Your task to perform on an android device: find which apps use the phone's location Image 0: 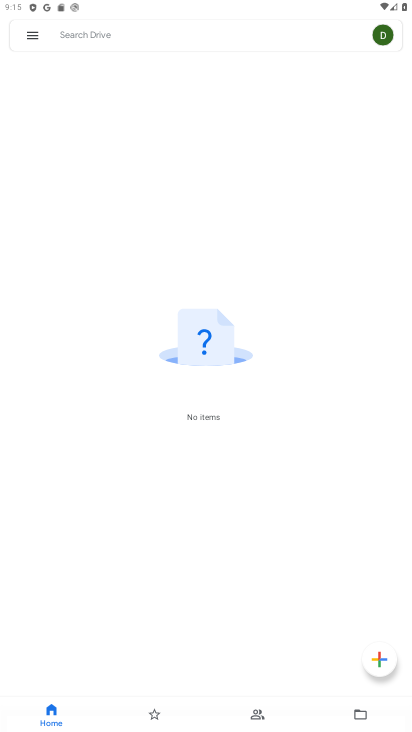
Step 0: press home button
Your task to perform on an android device: find which apps use the phone's location Image 1: 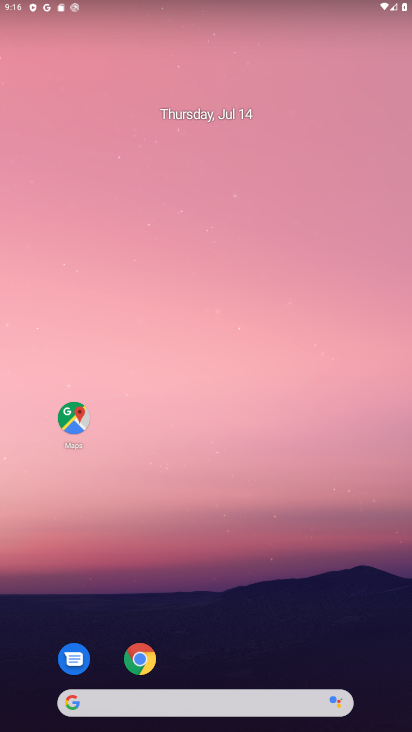
Step 1: drag from (314, 634) to (296, 273)
Your task to perform on an android device: find which apps use the phone's location Image 2: 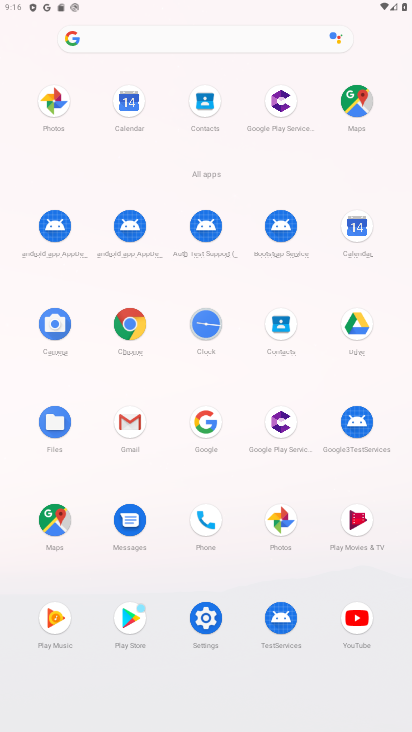
Step 2: click (206, 605)
Your task to perform on an android device: find which apps use the phone's location Image 3: 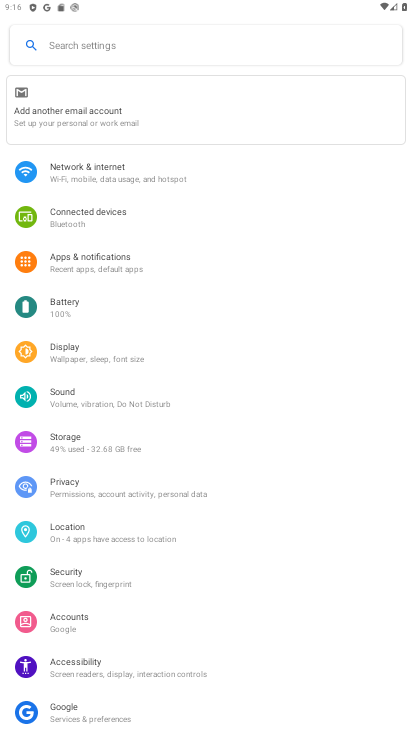
Step 3: click (87, 532)
Your task to perform on an android device: find which apps use the phone's location Image 4: 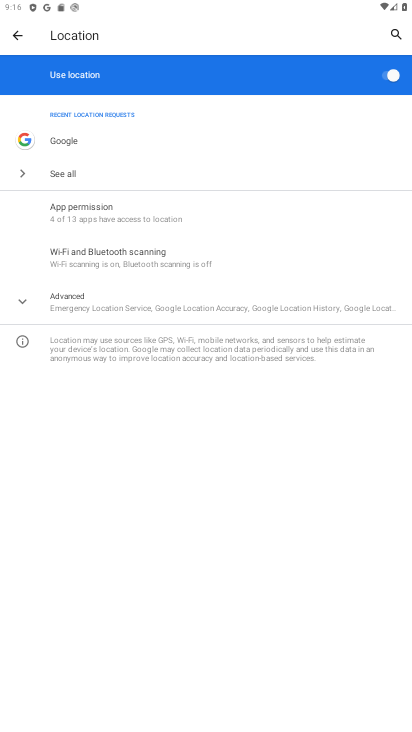
Step 4: click (174, 216)
Your task to perform on an android device: find which apps use the phone's location Image 5: 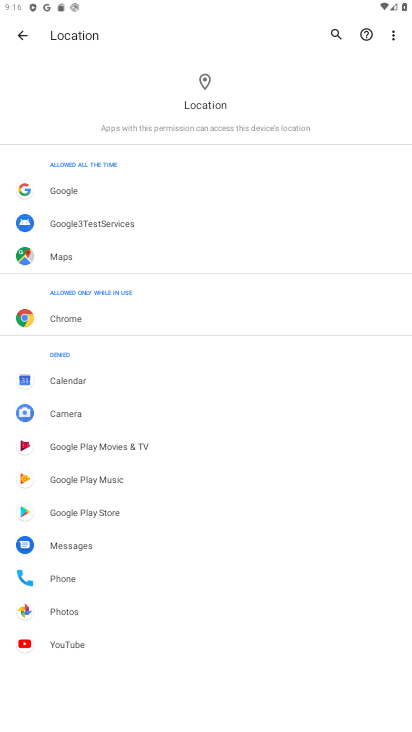
Step 5: task complete